Your task to perform on an android device: Open calendar and show me the fourth week of next month Image 0: 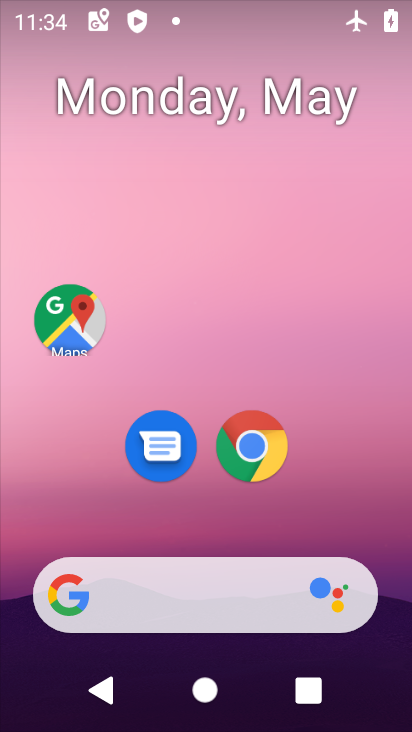
Step 0: drag from (347, 536) to (261, 148)
Your task to perform on an android device: Open calendar and show me the fourth week of next month Image 1: 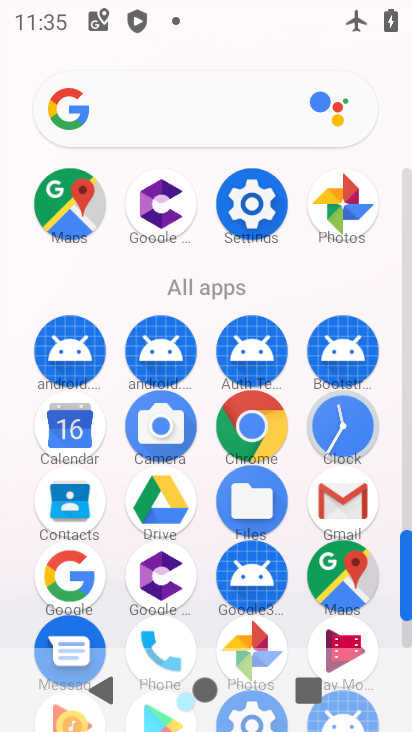
Step 1: click (76, 427)
Your task to perform on an android device: Open calendar and show me the fourth week of next month Image 2: 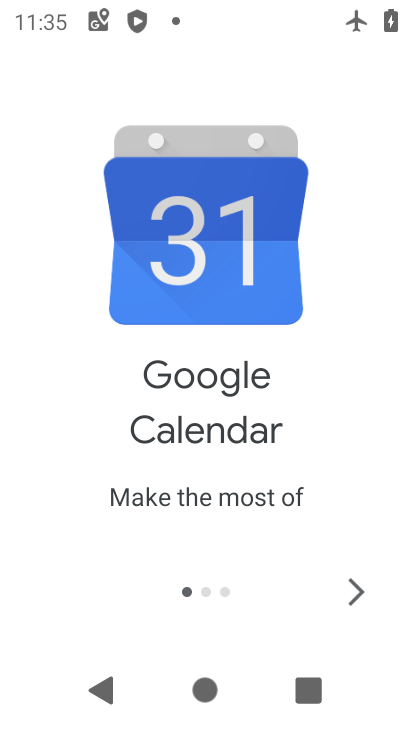
Step 2: click (360, 590)
Your task to perform on an android device: Open calendar and show me the fourth week of next month Image 3: 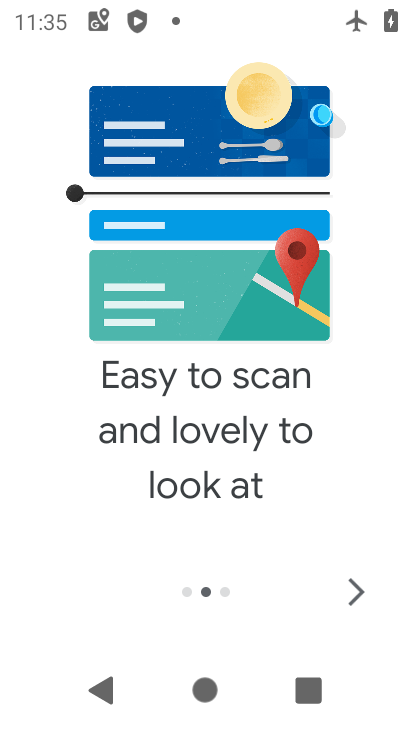
Step 3: click (360, 590)
Your task to perform on an android device: Open calendar and show me the fourth week of next month Image 4: 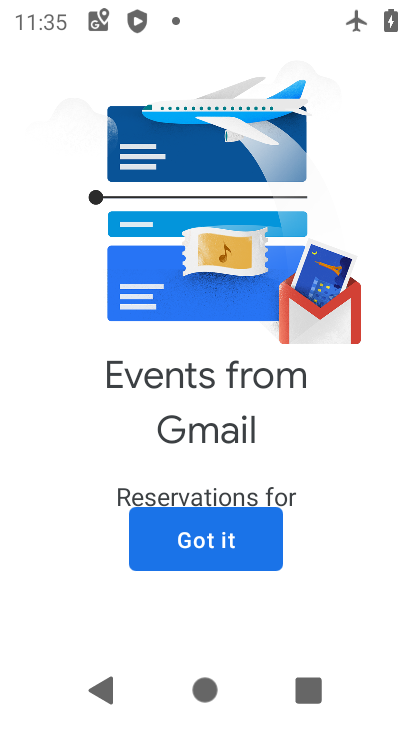
Step 4: click (212, 534)
Your task to perform on an android device: Open calendar and show me the fourth week of next month Image 5: 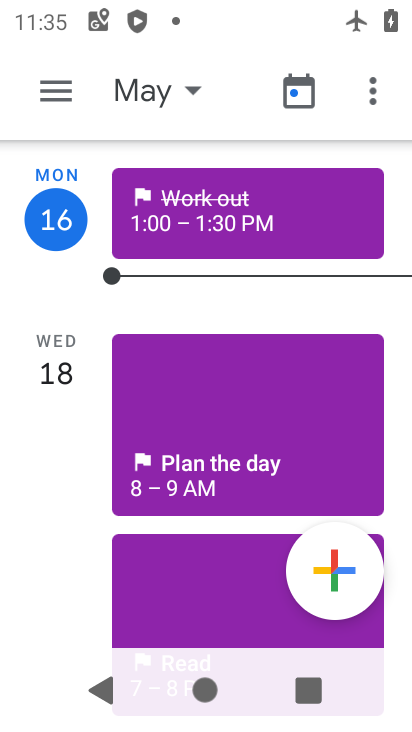
Step 5: click (183, 87)
Your task to perform on an android device: Open calendar and show me the fourth week of next month Image 6: 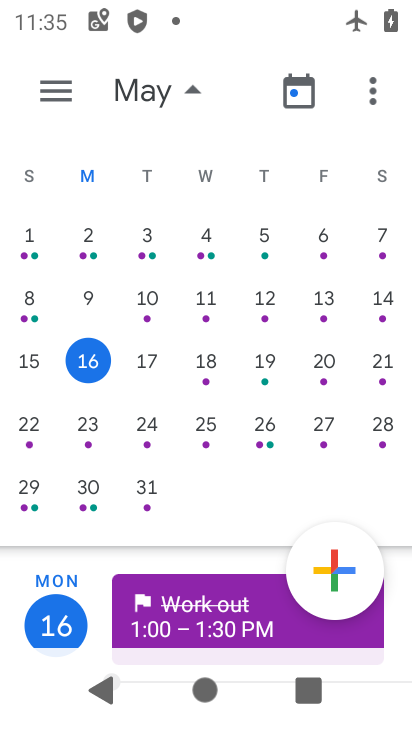
Step 6: drag from (348, 335) to (4, 358)
Your task to perform on an android device: Open calendar and show me the fourth week of next month Image 7: 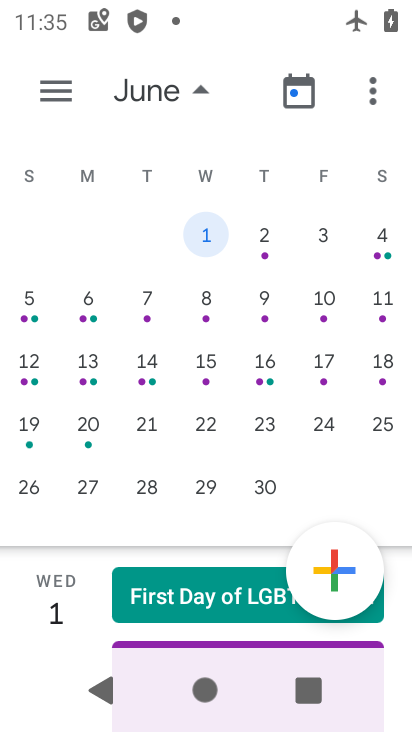
Step 7: click (95, 485)
Your task to perform on an android device: Open calendar and show me the fourth week of next month Image 8: 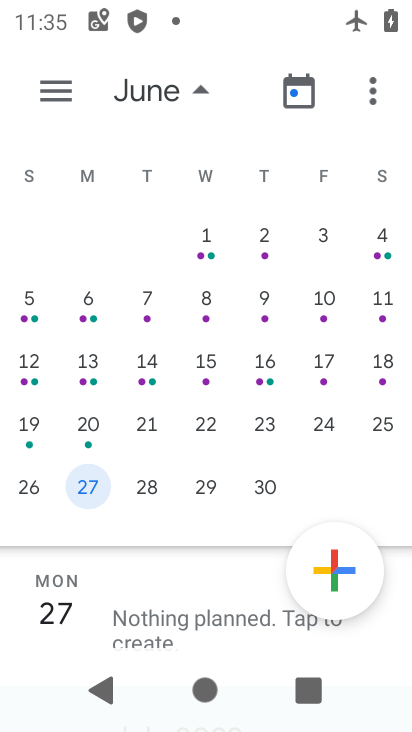
Step 8: click (59, 90)
Your task to perform on an android device: Open calendar and show me the fourth week of next month Image 9: 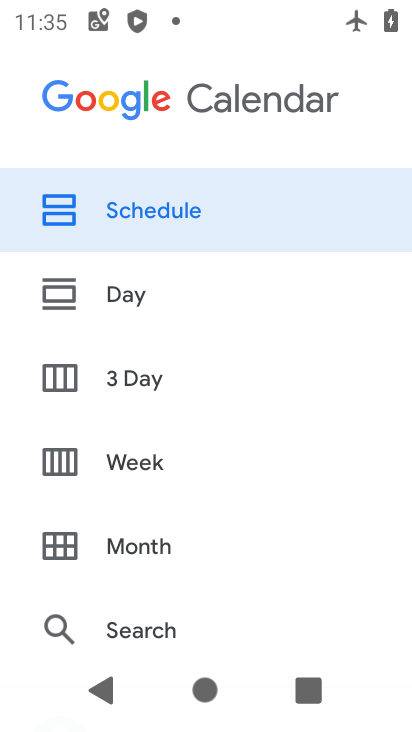
Step 9: click (136, 459)
Your task to perform on an android device: Open calendar and show me the fourth week of next month Image 10: 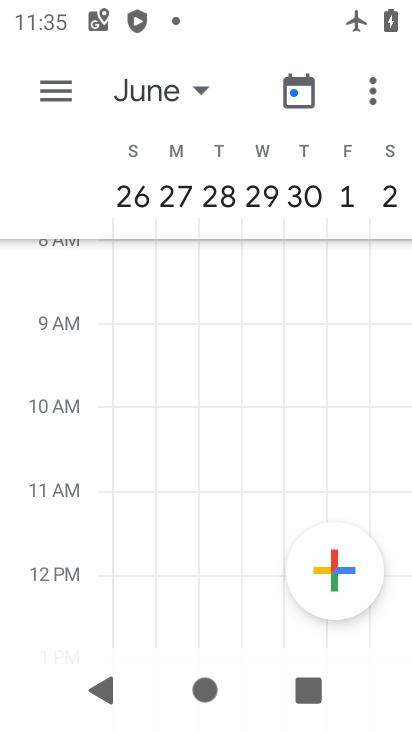
Step 10: task complete